Your task to perform on an android device: What's the weather going to be this weekend? Image 0: 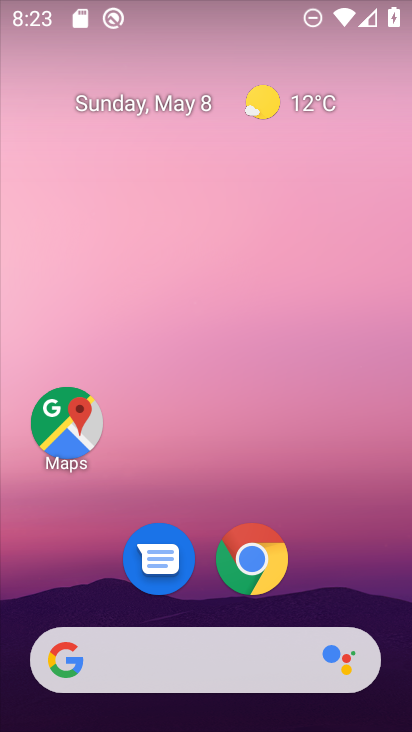
Step 0: click (318, 113)
Your task to perform on an android device: What's the weather going to be this weekend? Image 1: 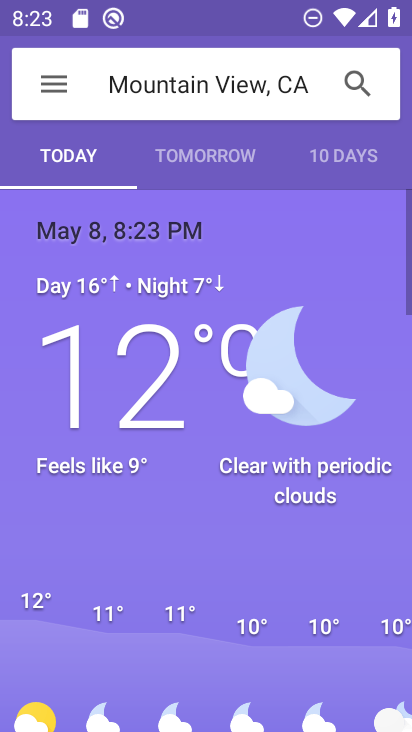
Step 1: click (354, 163)
Your task to perform on an android device: What's the weather going to be this weekend? Image 2: 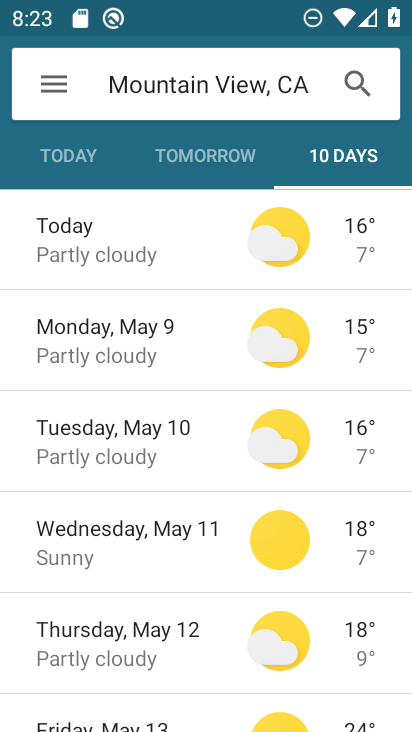
Step 2: task complete